Your task to perform on an android device: turn notification dots off Image 0: 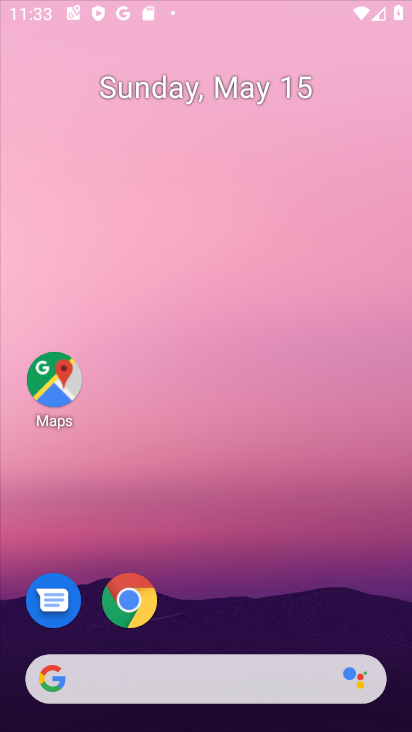
Step 0: drag from (230, 671) to (275, 5)
Your task to perform on an android device: turn notification dots off Image 1: 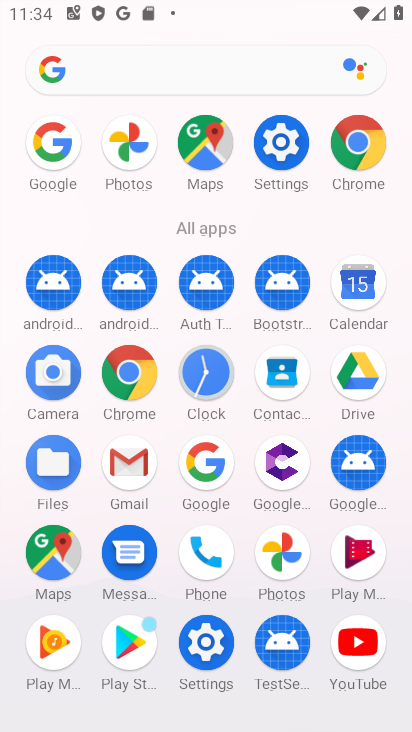
Step 1: click (291, 136)
Your task to perform on an android device: turn notification dots off Image 2: 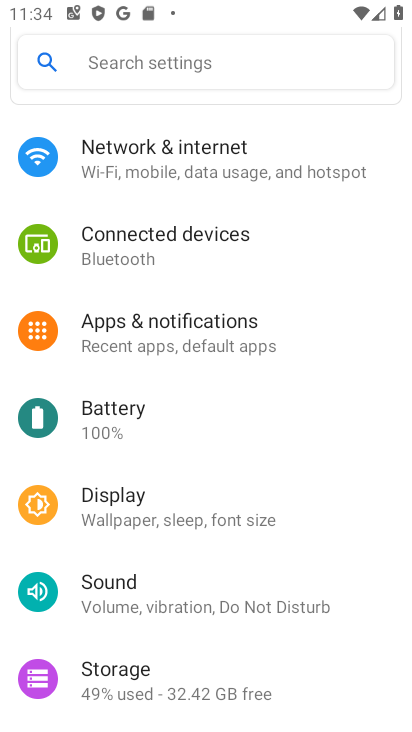
Step 2: click (127, 333)
Your task to perform on an android device: turn notification dots off Image 3: 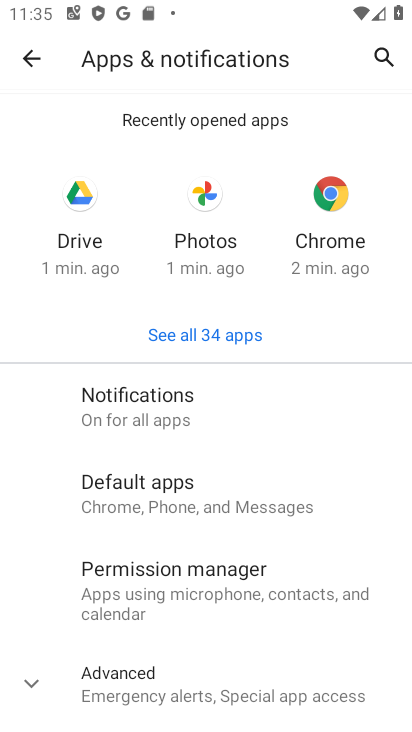
Step 3: click (138, 381)
Your task to perform on an android device: turn notification dots off Image 4: 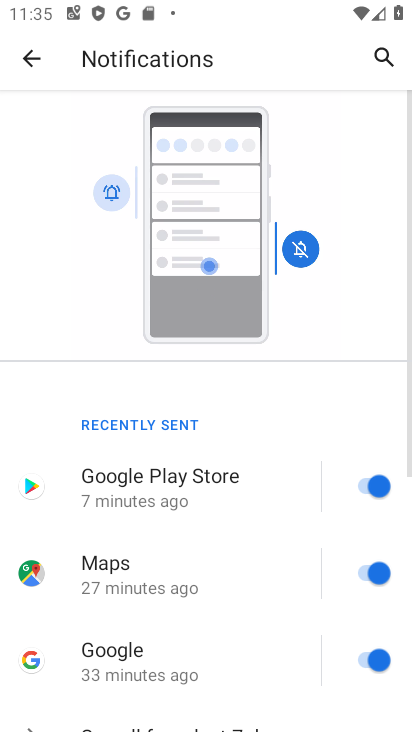
Step 4: drag from (214, 594) to (301, 206)
Your task to perform on an android device: turn notification dots off Image 5: 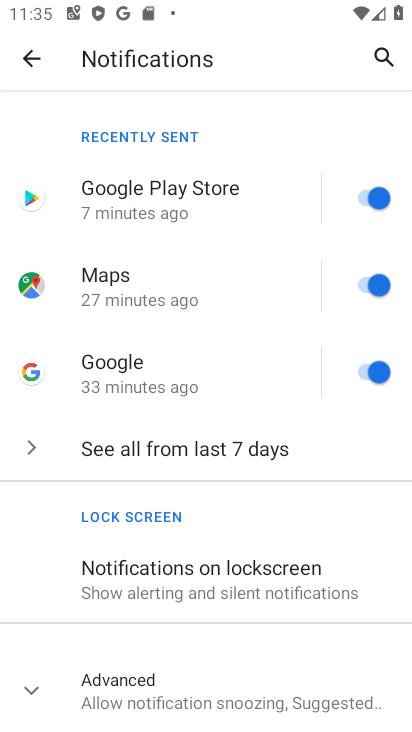
Step 5: drag from (158, 600) to (234, 188)
Your task to perform on an android device: turn notification dots off Image 6: 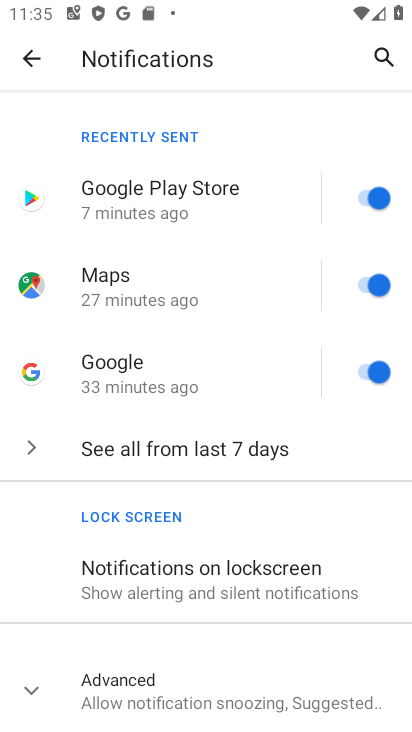
Step 6: click (117, 695)
Your task to perform on an android device: turn notification dots off Image 7: 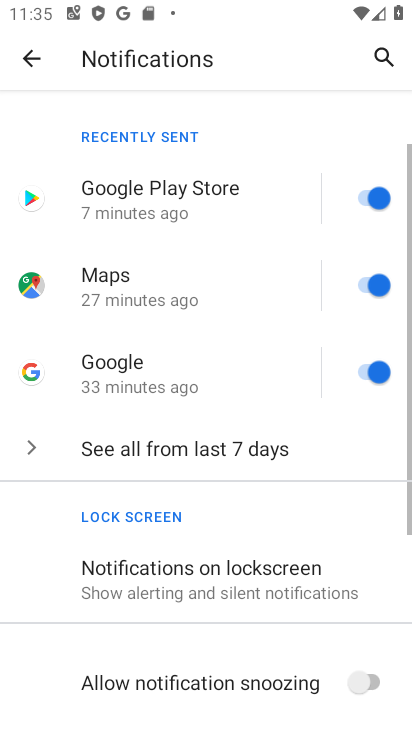
Step 7: drag from (117, 695) to (298, 148)
Your task to perform on an android device: turn notification dots off Image 8: 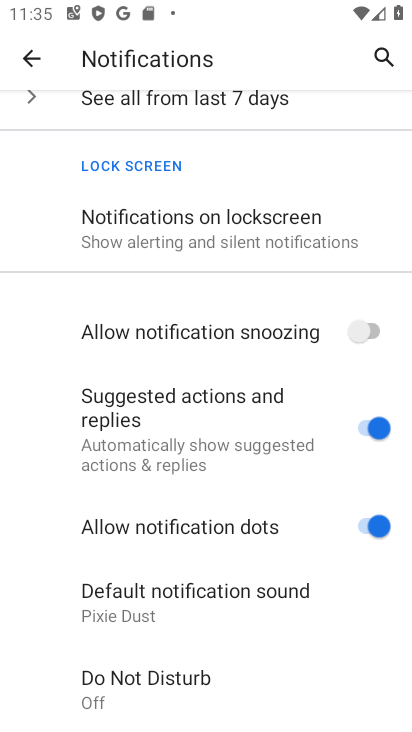
Step 8: click (368, 517)
Your task to perform on an android device: turn notification dots off Image 9: 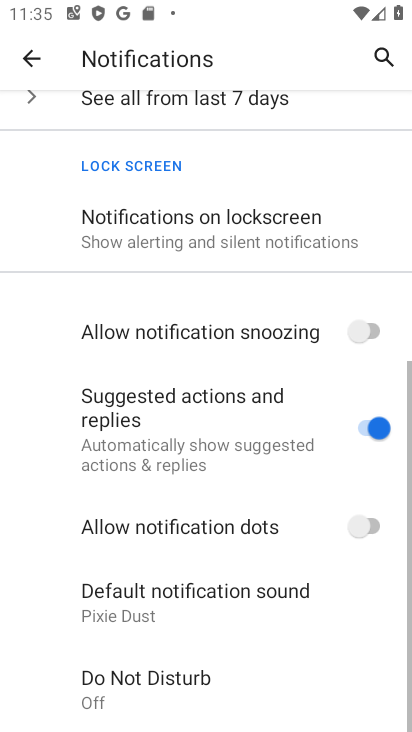
Step 9: task complete